Your task to perform on an android device: Search for "lenovo thinkpad" on costco, select the first entry, and add it to the cart. Image 0: 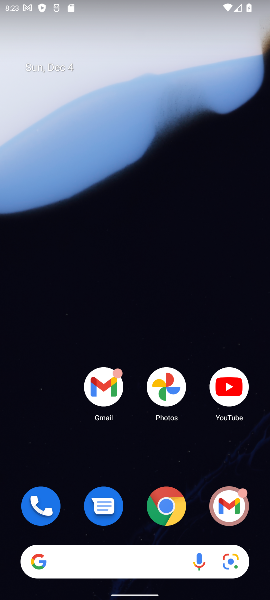
Step 0: click (166, 495)
Your task to perform on an android device: Search for "lenovo thinkpad" on costco, select the first entry, and add it to the cart. Image 1: 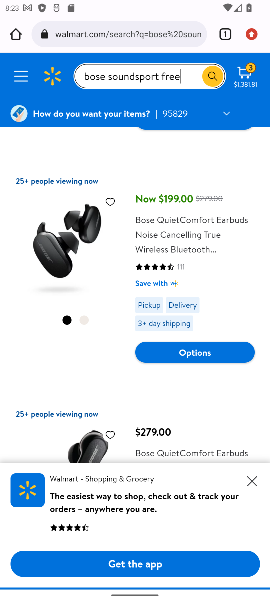
Step 1: task complete